Your task to perform on an android device: Open settings Image 0: 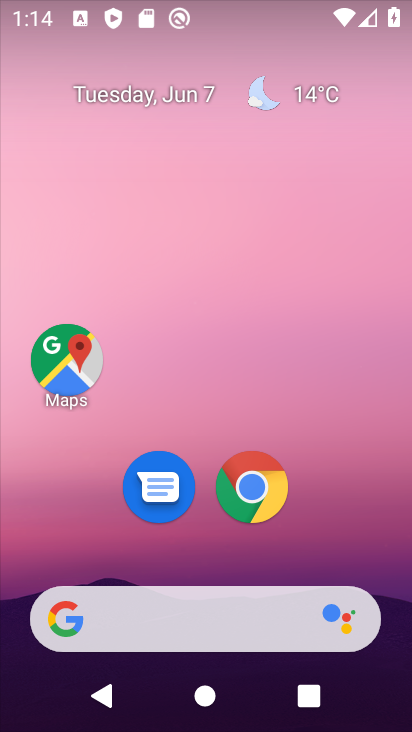
Step 0: click (47, 172)
Your task to perform on an android device: Open settings Image 1: 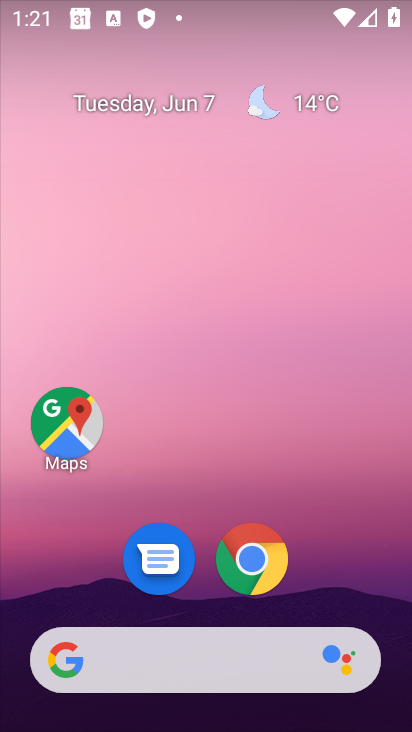
Step 1: click (228, 17)
Your task to perform on an android device: Open settings Image 2: 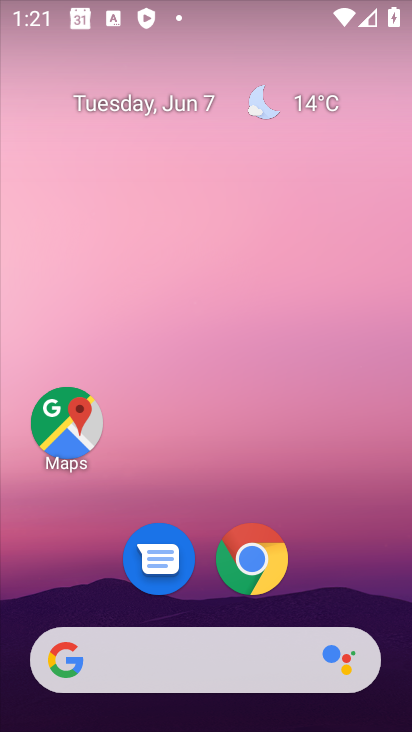
Step 2: click (232, 29)
Your task to perform on an android device: Open settings Image 3: 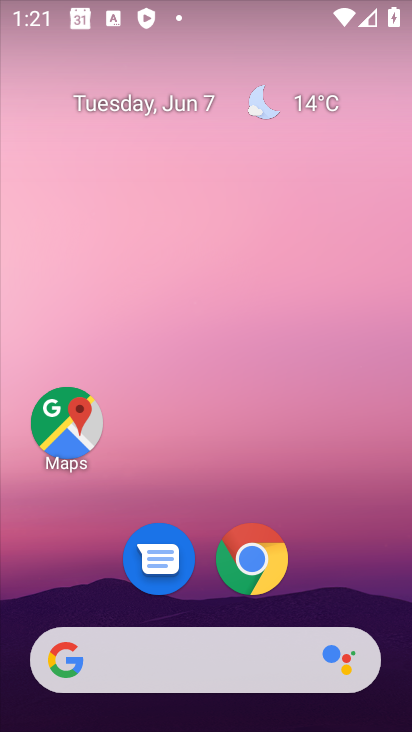
Step 3: click (234, 10)
Your task to perform on an android device: Open settings Image 4: 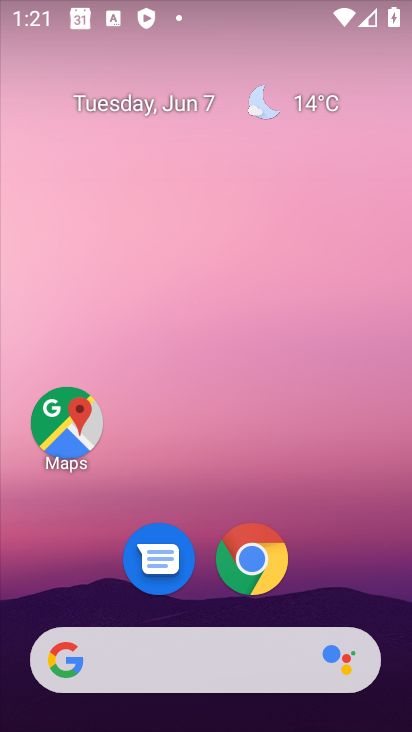
Step 4: click (270, 27)
Your task to perform on an android device: Open settings Image 5: 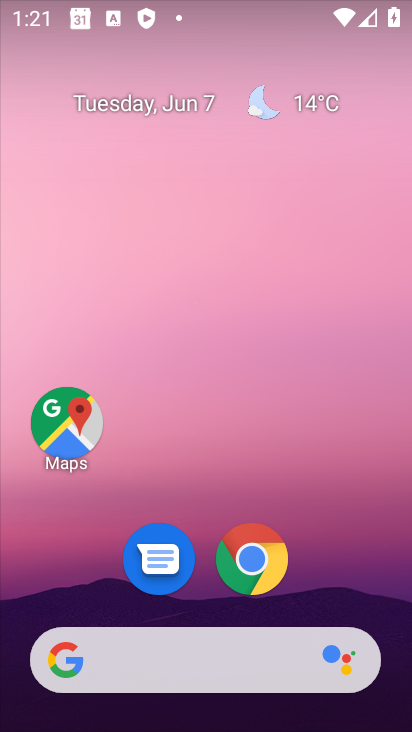
Step 5: click (251, 29)
Your task to perform on an android device: Open settings Image 6: 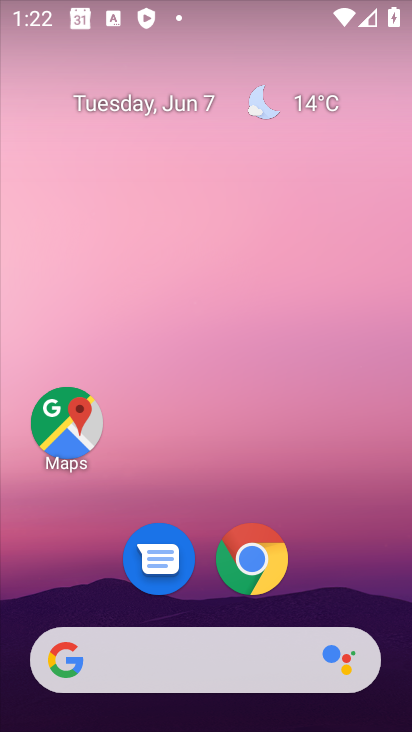
Step 6: click (254, 21)
Your task to perform on an android device: Open settings Image 7: 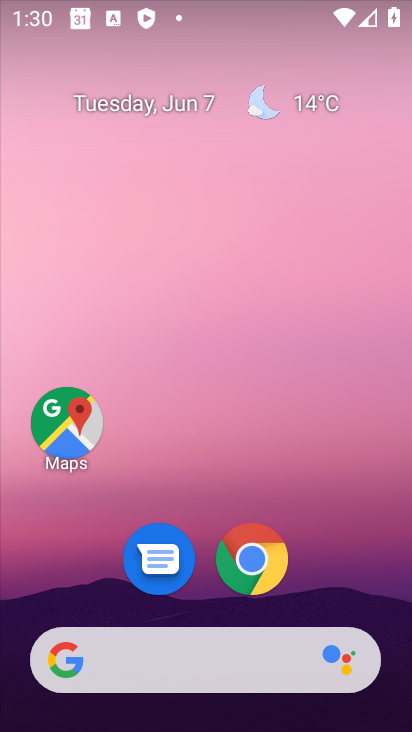
Step 7: drag from (53, 554) to (264, 190)
Your task to perform on an android device: Open settings Image 8: 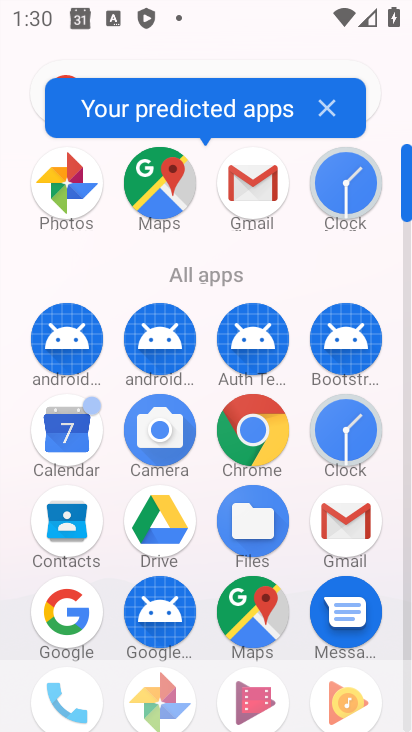
Step 8: drag from (10, 509) to (230, 213)
Your task to perform on an android device: Open settings Image 9: 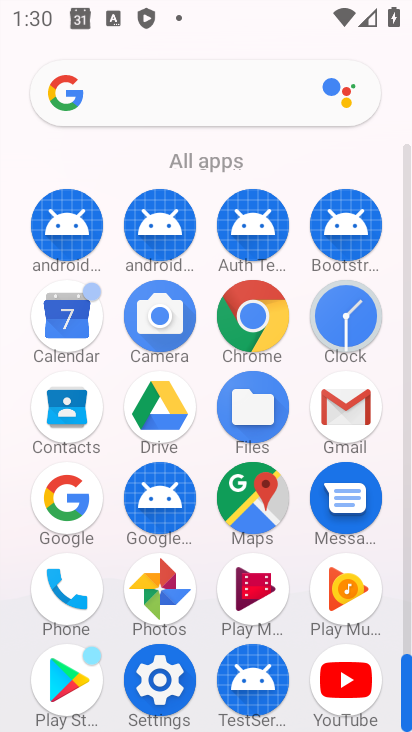
Step 9: click (160, 664)
Your task to perform on an android device: Open settings Image 10: 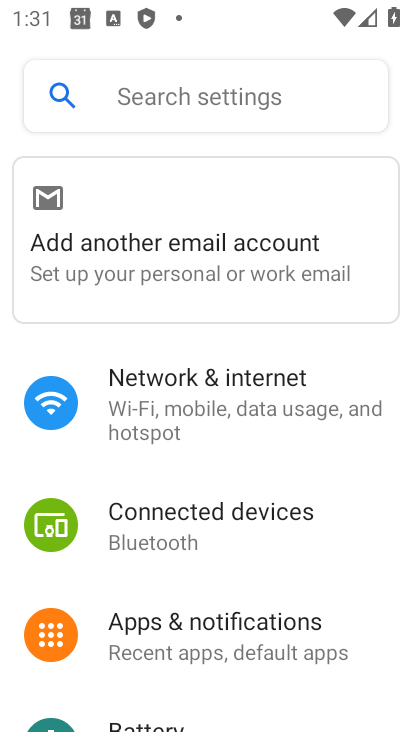
Step 10: task complete